Your task to perform on an android device: Turn on the flashlight Image 0: 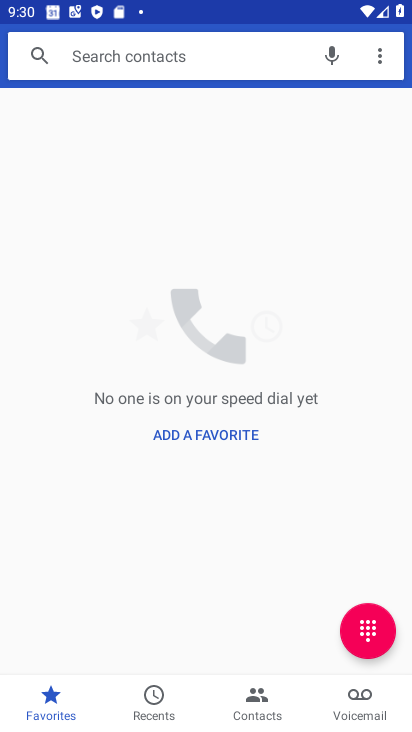
Step 0: press home button
Your task to perform on an android device: Turn on the flashlight Image 1: 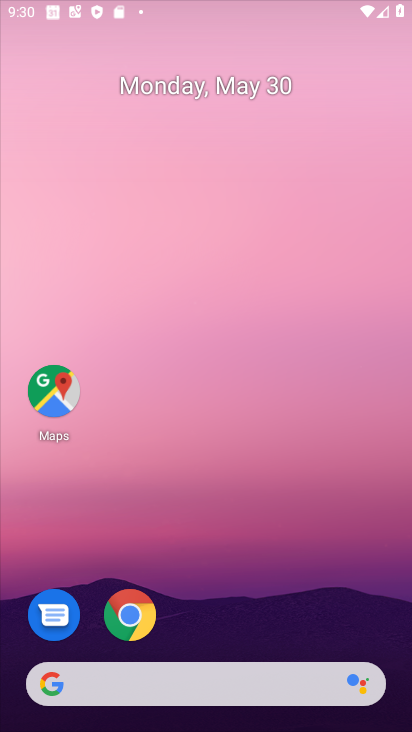
Step 1: task complete